Your task to perform on an android device: Open Google Maps Image 0: 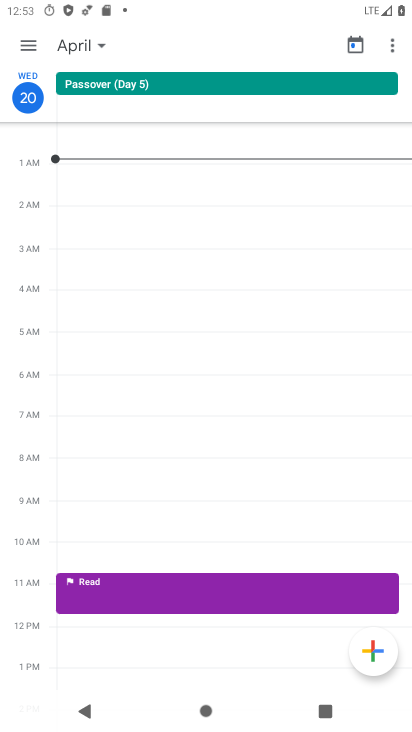
Step 0: press home button
Your task to perform on an android device: Open Google Maps Image 1: 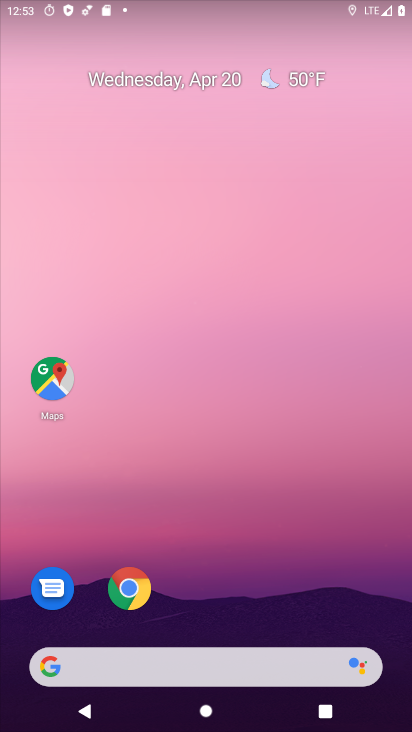
Step 1: drag from (213, 603) to (210, 25)
Your task to perform on an android device: Open Google Maps Image 2: 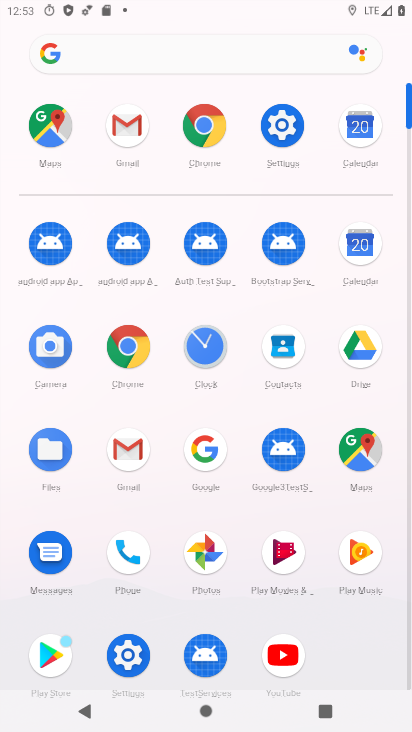
Step 2: click (361, 444)
Your task to perform on an android device: Open Google Maps Image 3: 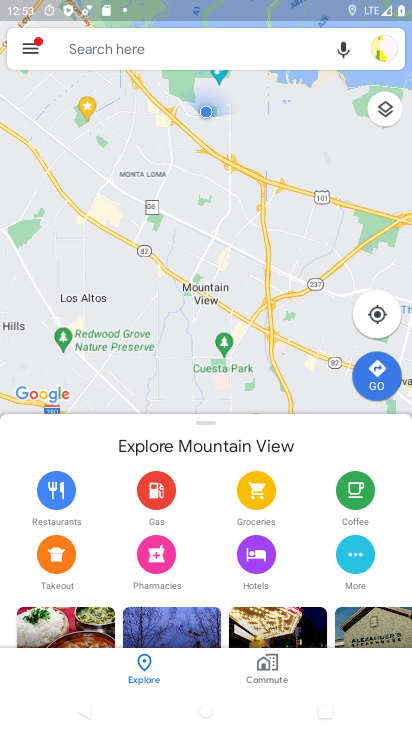
Step 3: task complete